Your task to perform on an android device: check google app version Image 0: 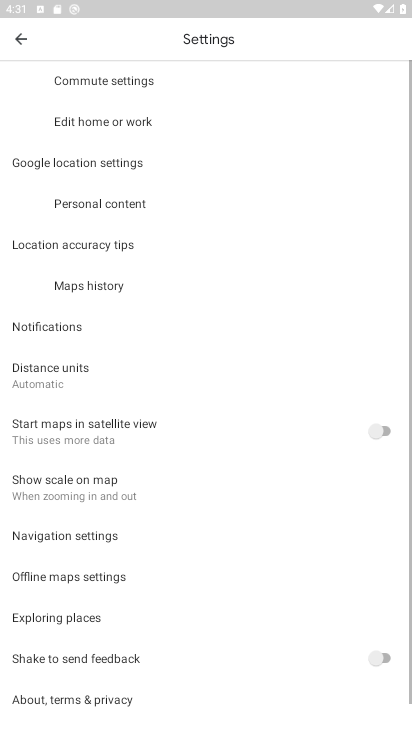
Step 0: press home button
Your task to perform on an android device: check google app version Image 1: 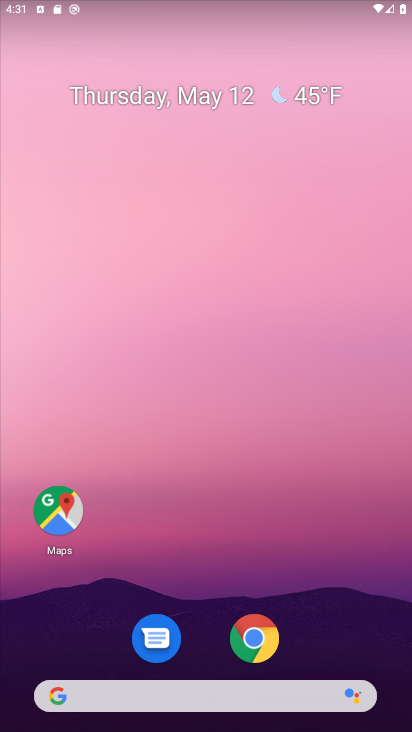
Step 1: drag from (324, 492) to (182, 0)
Your task to perform on an android device: check google app version Image 2: 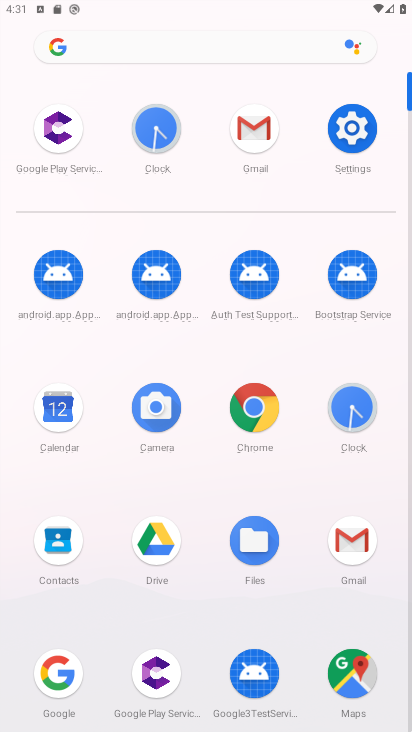
Step 2: click (54, 667)
Your task to perform on an android device: check google app version Image 3: 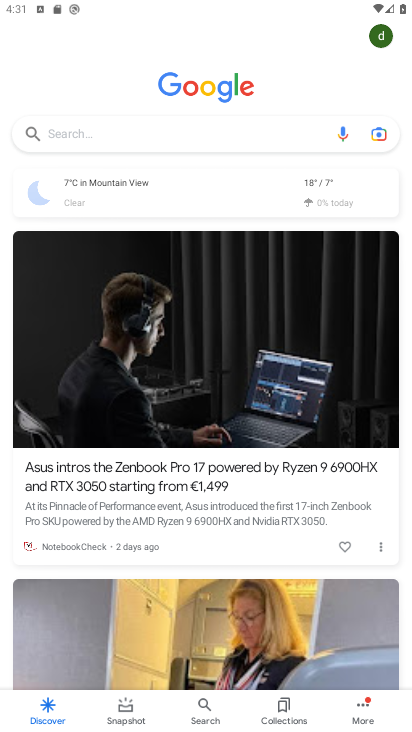
Step 3: click (359, 714)
Your task to perform on an android device: check google app version Image 4: 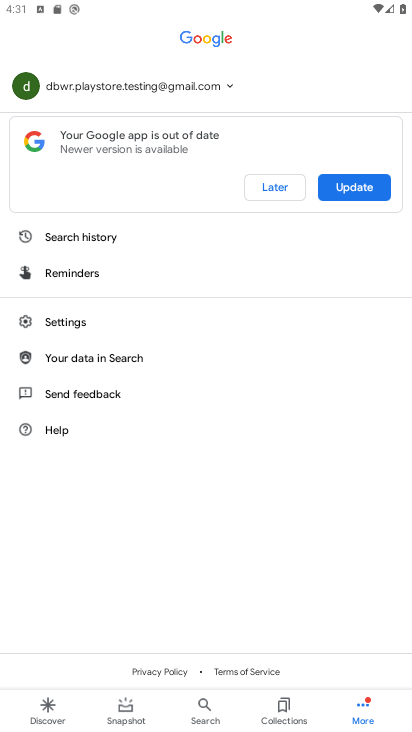
Step 4: click (84, 319)
Your task to perform on an android device: check google app version Image 5: 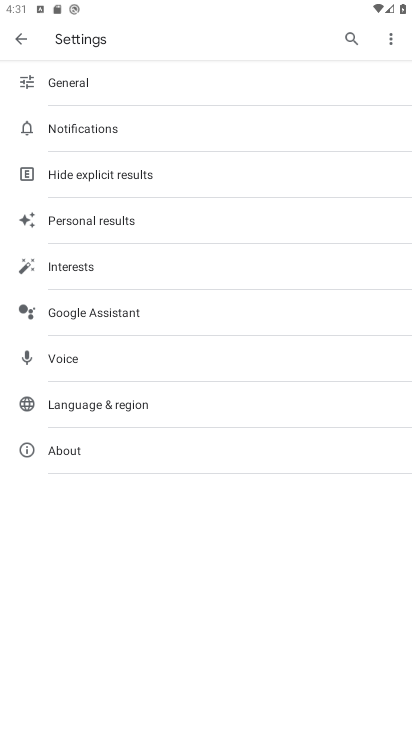
Step 5: click (81, 451)
Your task to perform on an android device: check google app version Image 6: 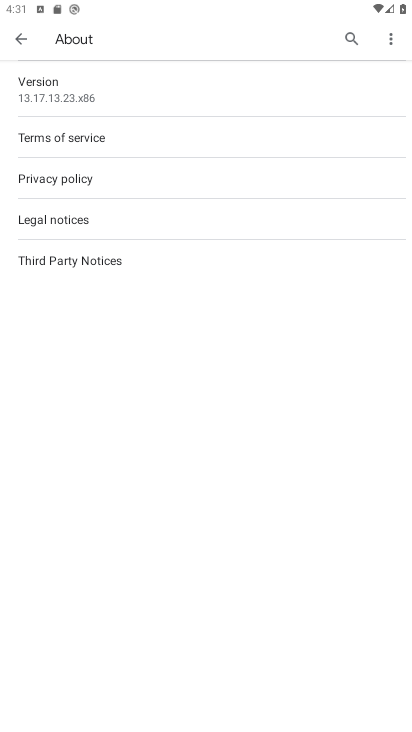
Step 6: click (81, 82)
Your task to perform on an android device: check google app version Image 7: 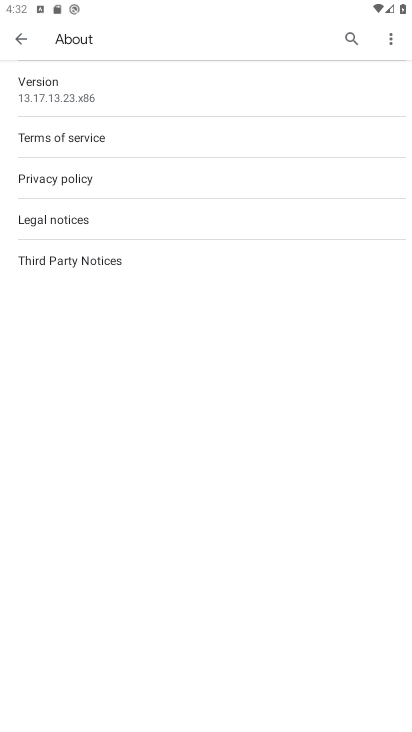
Step 7: task complete